Your task to perform on an android device: Open calendar and show me the first week of next month Image 0: 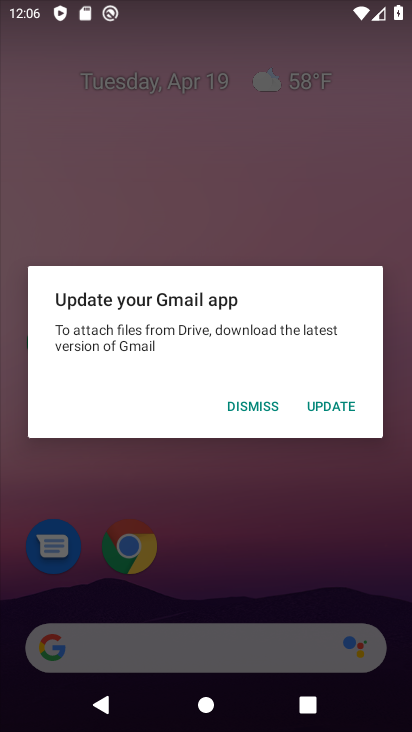
Step 0: press home button
Your task to perform on an android device: Open calendar and show me the first week of next month Image 1: 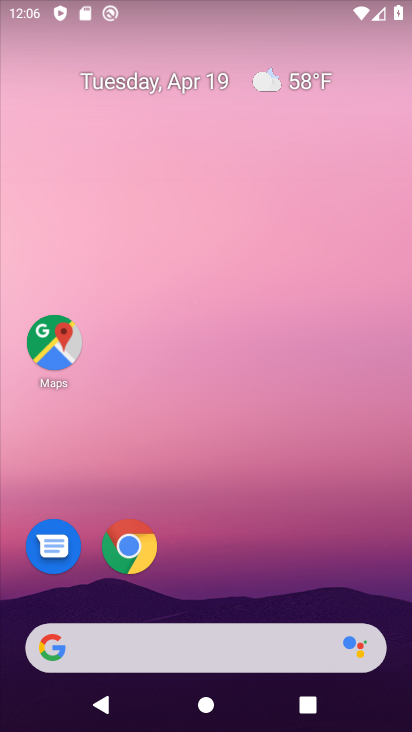
Step 1: drag from (200, 593) to (217, 22)
Your task to perform on an android device: Open calendar and show me the first week of next month Image 2: 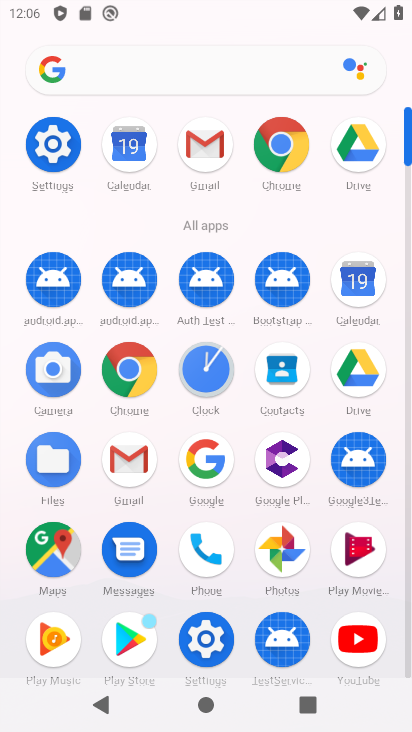
Step 2: click (348, 277)
Your task to perform on an android device: Open calendar and show me the first week of next month Image 3: 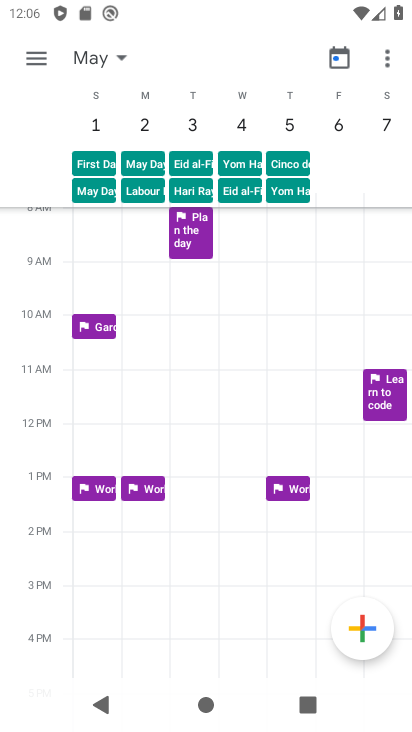
Step 3: task complete